Your task to perform on an android device: Open Maps and search for coffee Image 0: 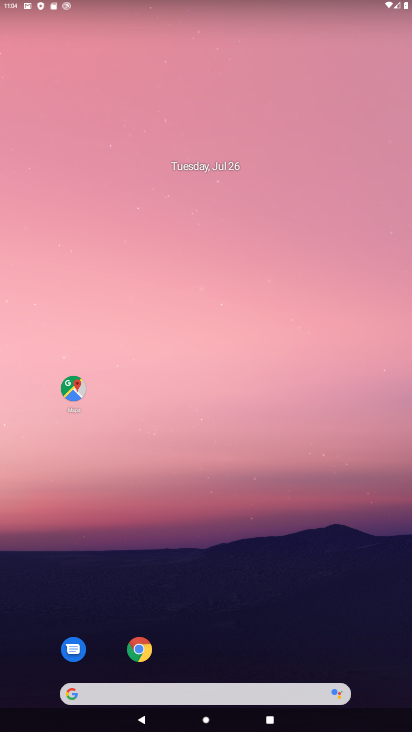
Step 0: drag from (201, 567) to (140, 124)
Your task to perform on an android device: Open Maps and search for coffee Image 1: 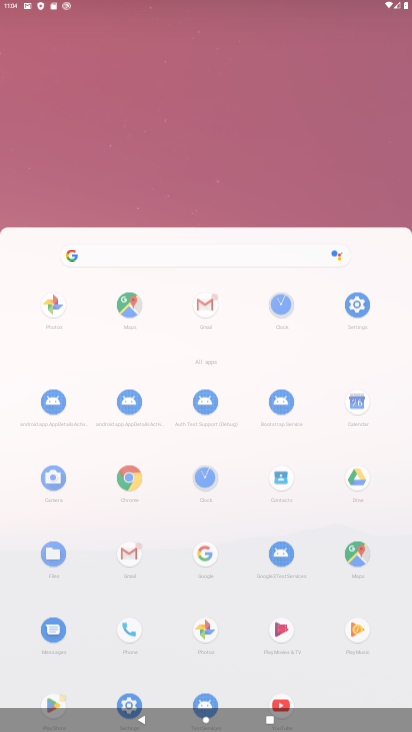
Step 1: drag from (277, 661) to (234, 155)
Your task to perform on an android device: Open Maps and search for coffee Image 2: 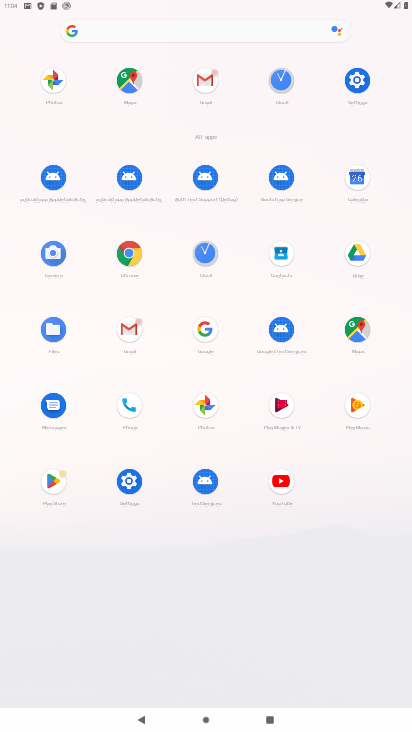
Step 2: drag from (262, 641) to (190, 178)
Your task to perform on an android device: Open Maps and search for coffee Image 3: 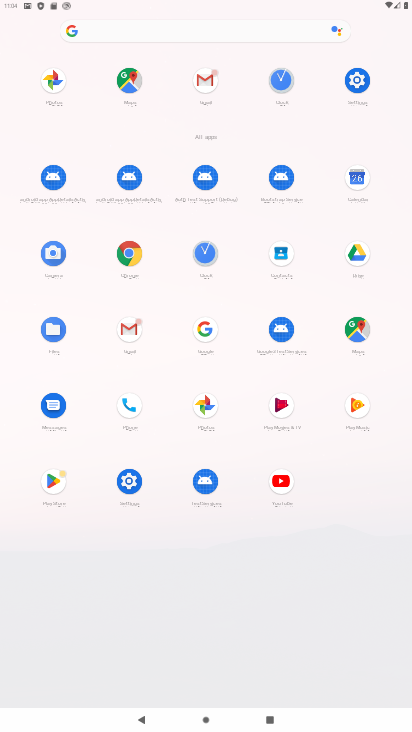
Step 3: click (366, 324)
Your task to perform on an android device: Open Maps and search for coffee Image 4: 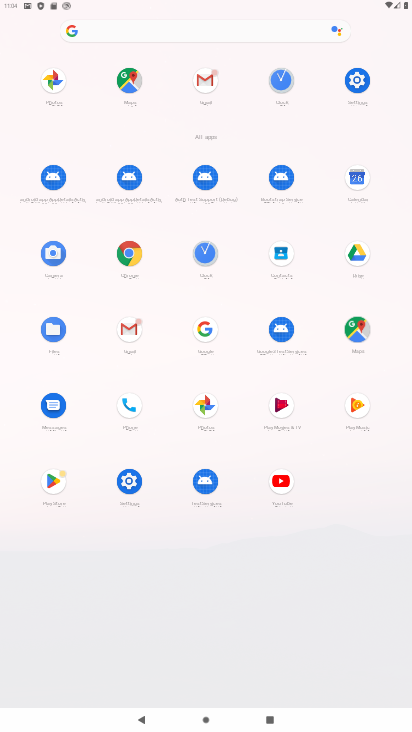
Step 4: click (363, 324)
Your task to perform on an android device: Open Maps and search for coffee Image 5: 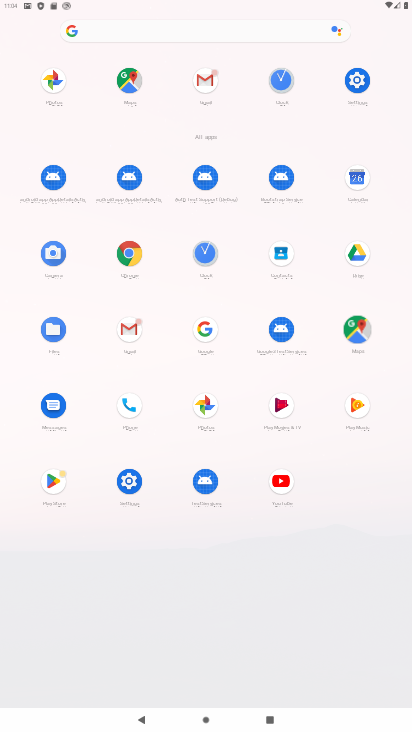
Step 5: click (364, 323)
Your task to perform on an android device: Open Maps and search for coffee Image 6: 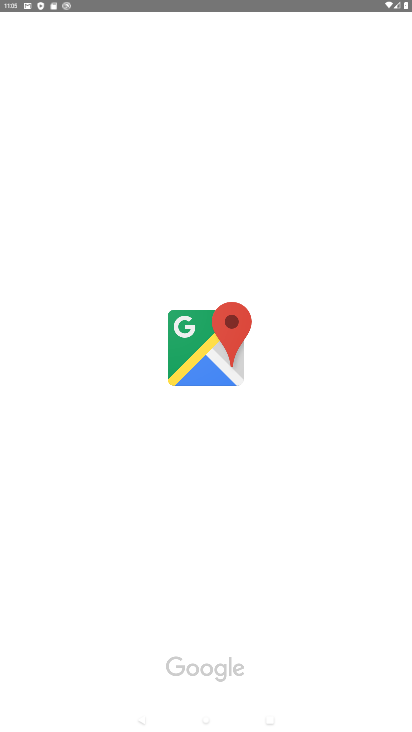
Step 6: click (206, 339)
Your task to perform on an android device: Open Maps and search for coffee Image 7: 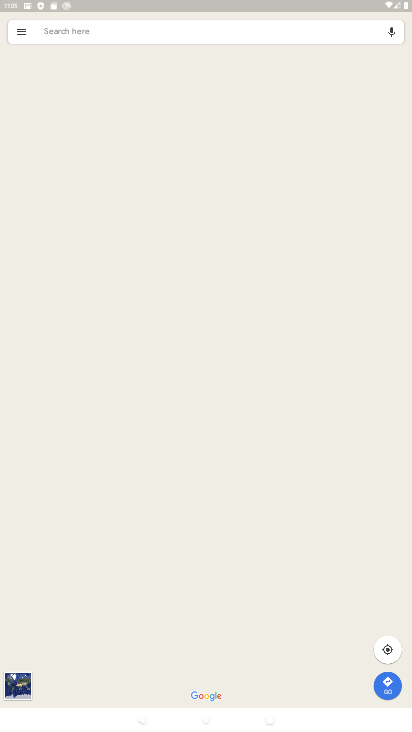
Step 7: click (203, 343)
Your task to perform on an android device: Open Maps and search for coffee Image 8: 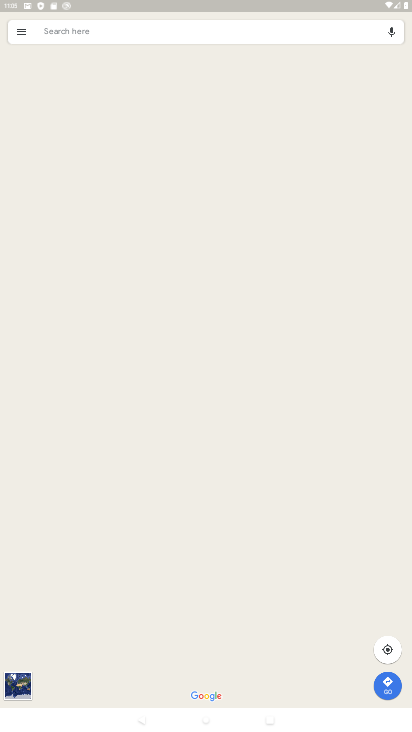
Step 8: click (94, 34)
Your task to perform on an android device: Open Maps and search for coffee Image 9: 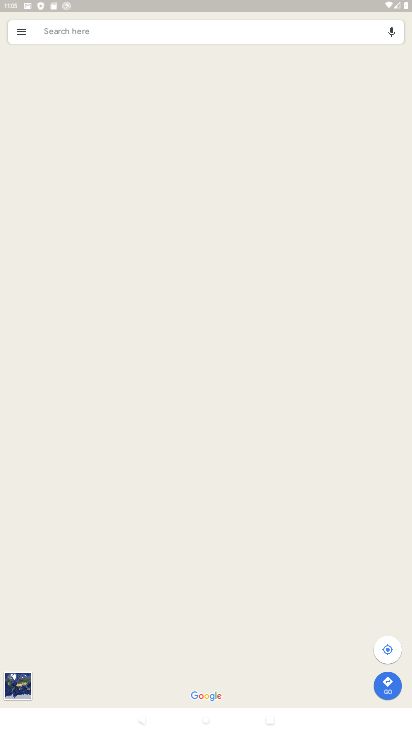
Step 9: click (96, 32)
Your task to perform on an android device: Open Maps and search for coffee Image 10: 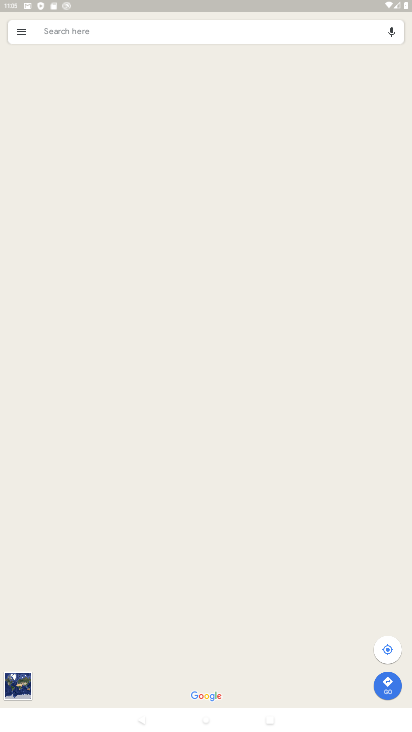
Step 10: click (96, 32)
Your task to perform on an android device: Open Maps and search for coffee Image 11: 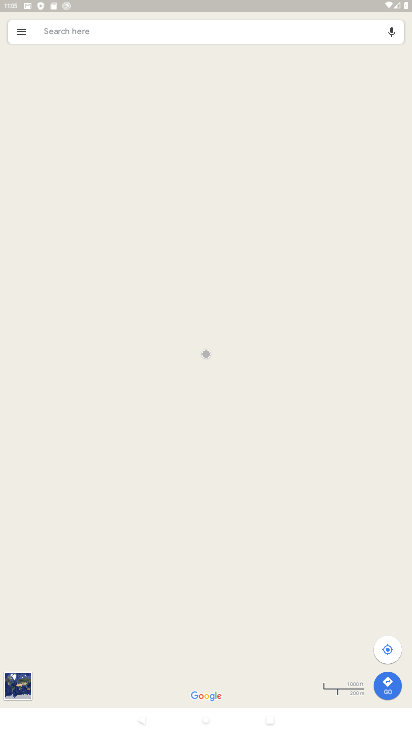
Step 11: click (97, 31)
Your task to perform on an android device: Open Maps and search for coffee Image 12: 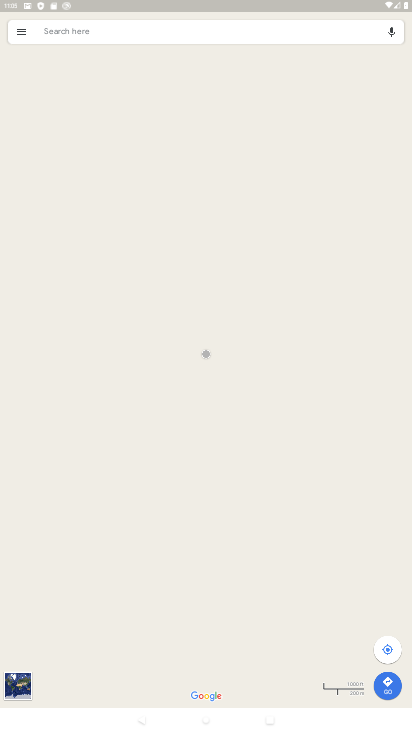
Step 12: click (97, 32)
Your task to perform on an android device: Open Maps and search for coffee Image 13: 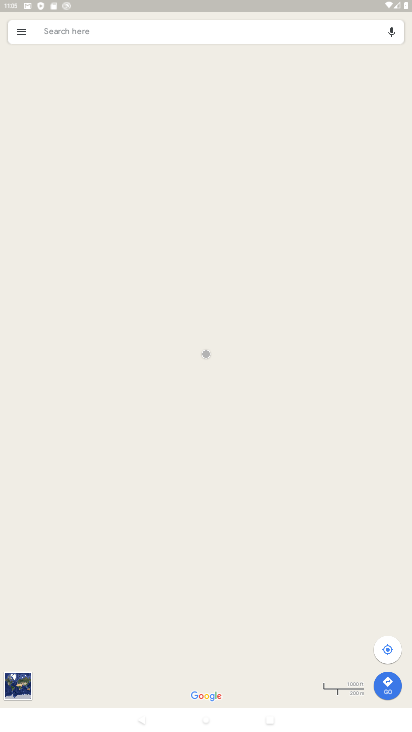
Step 13: click (127, 29)
Your task to perform on an android device: Open Maps and search for coffee Image 14: 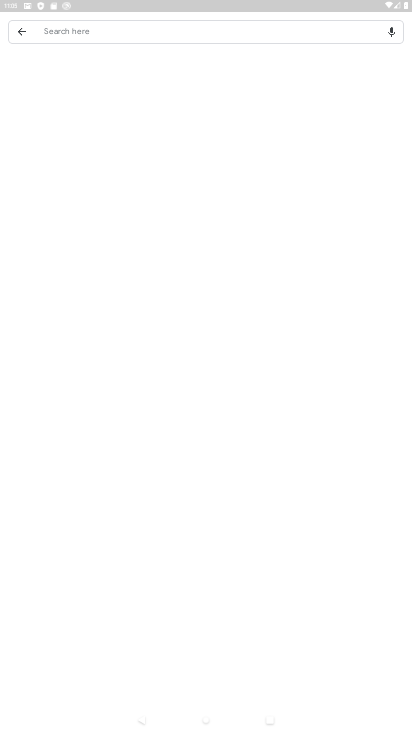
Step 14: click (97, 28)
Your task to perform on an android device: Open Maps and search for coffee Image 15: 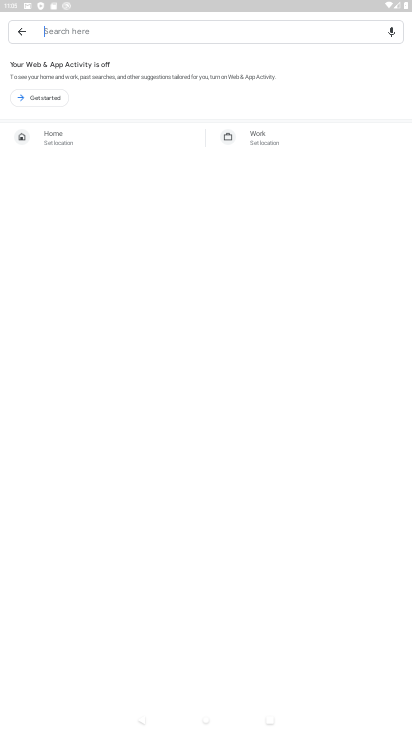
Step 15: click (113, 29)
Your task to perform on an android device: Open Maps and search for coffee Image 16: 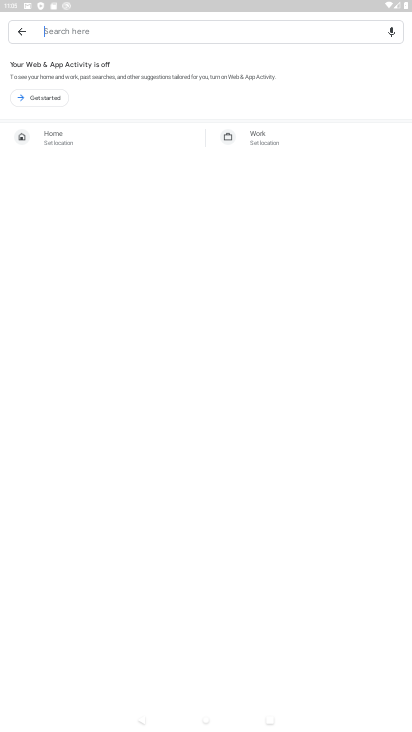
Step 16: click (120, 38)
Your task to perform on an android device: Open Maps and search for coffee Image 17: 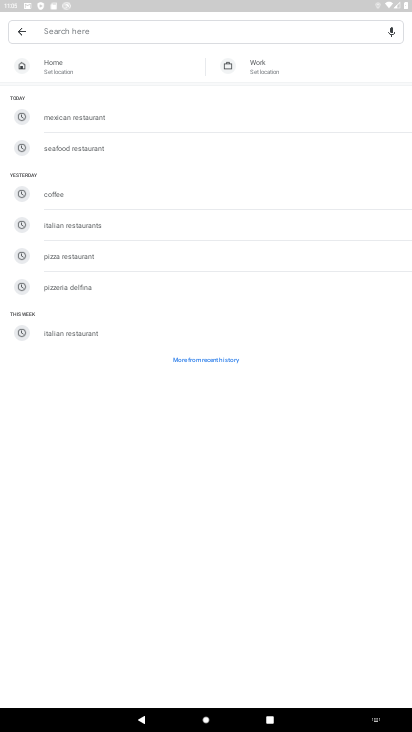
Step 17: type "coffee"
Your task to perform on an android device: Open Maps and search for coffee Image 18: 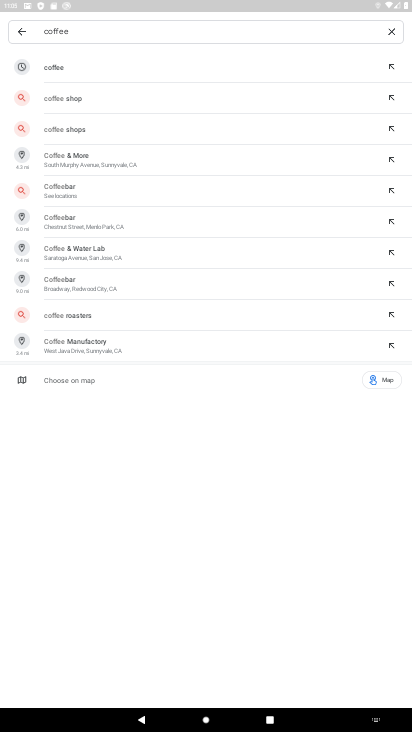
Step 18: click (72, 71)
Your task to perform on an android device: Open Maps and search for coffee Image 19: 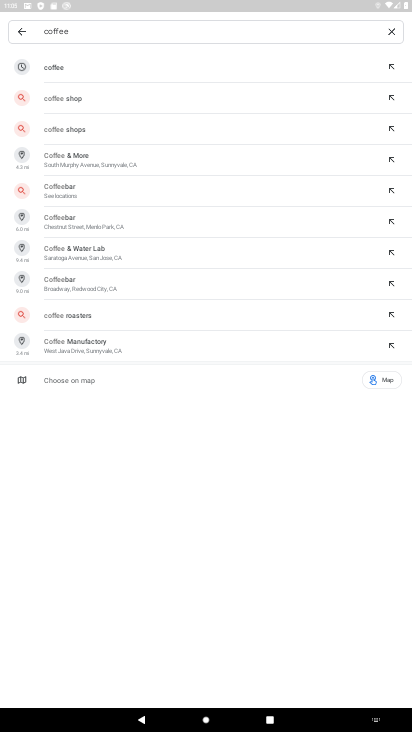
Step 19: click (71, 71)
Your task to perform on an android device: Open Maps and search for coffee Image 20: 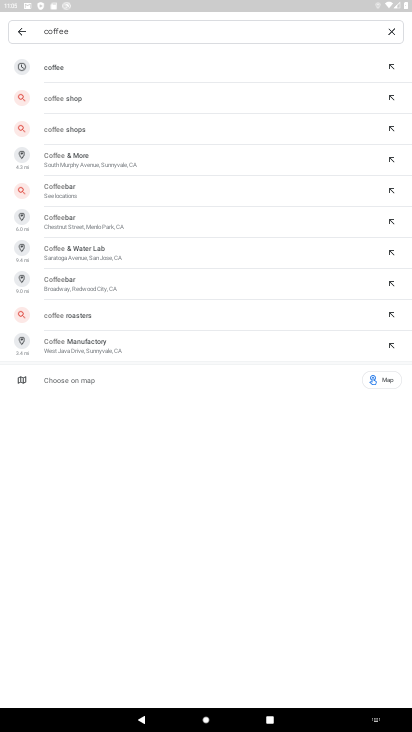
Step 20: click (71, 71)
Your task to perform on an android device: Open Maps and search for coffee Image 21: 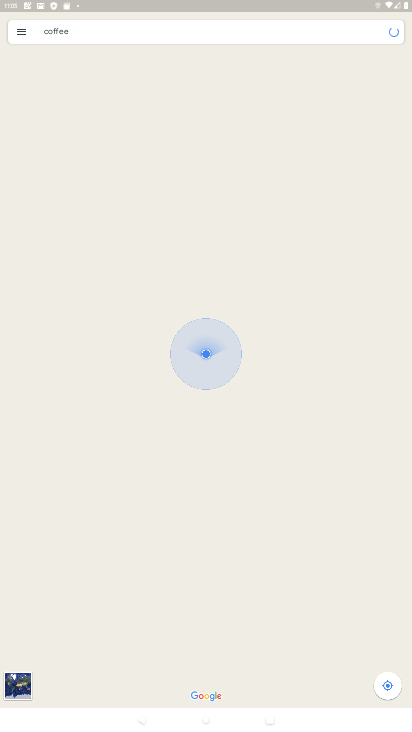
Step 21: task complete